Your task to perform on an android device: Open Google Maps Image 0: 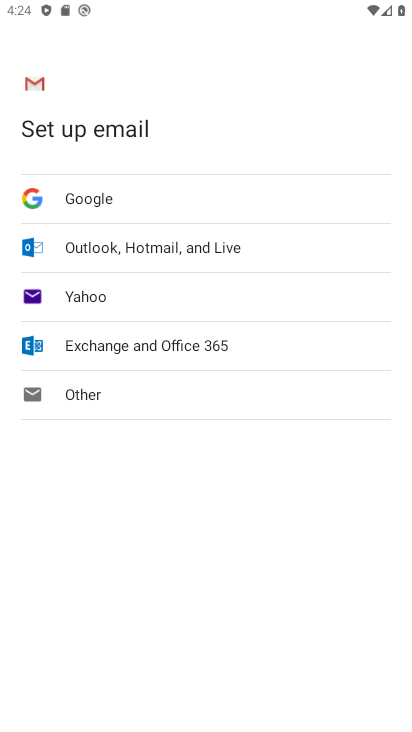
Step 0: press home button
Your task to perform on an android device: Open Google Maps Image 1: 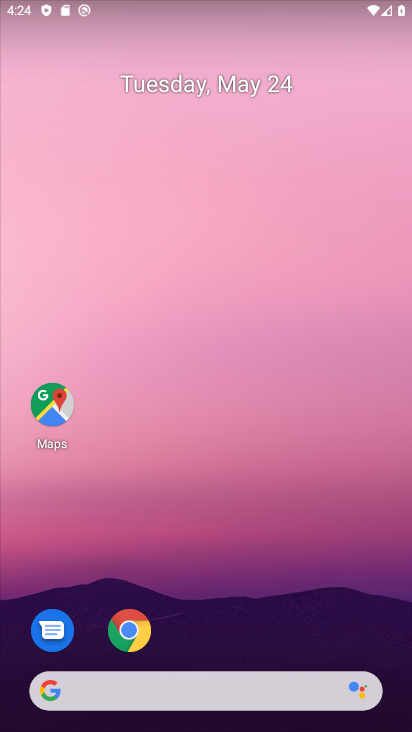
Step 1: click (51, 415)
Your task to perform on an android device: Open Google Maps Image 2: 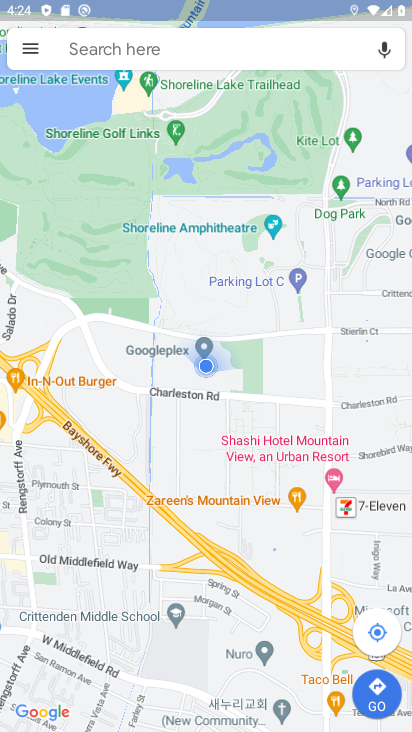
Step 2: task complete